Your task to perform on an android device: Open my contact list Image 0: 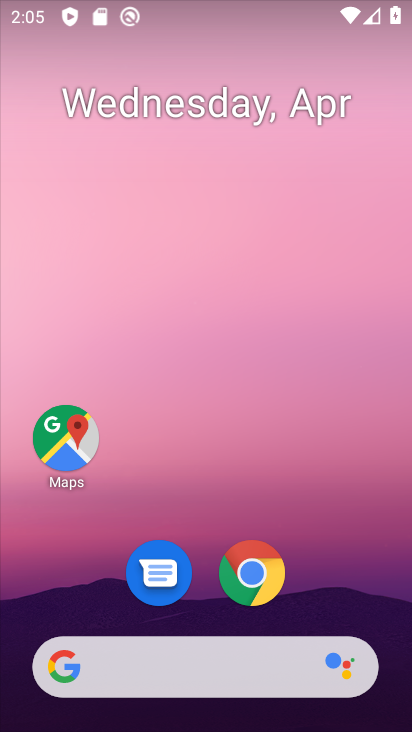
Step 0: drag from (373, 561) to (381, 147)
Your task to perform on an android device: Open my contact list Image 1: 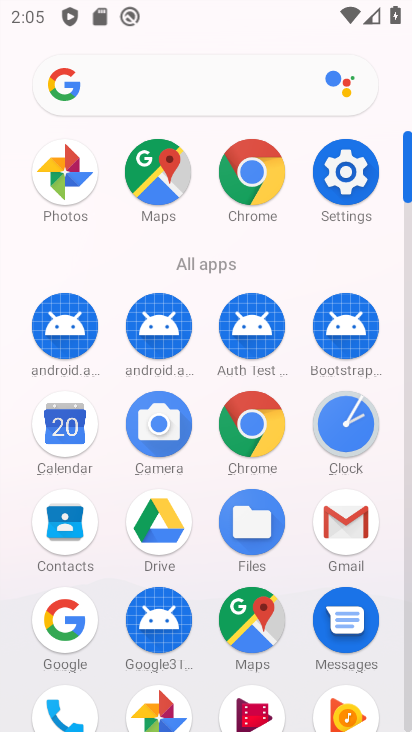
Step 1: click (74, 538)
Your task to perform on an android device: Open my contact list Image 2: 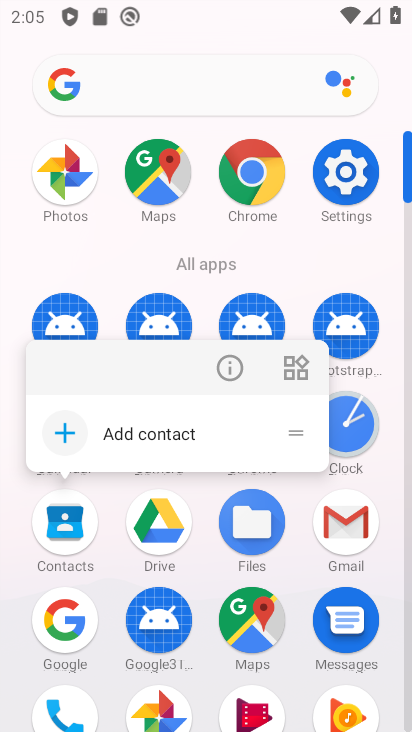
Step 2: click (68, 523)
Your task to perform on an android device: Open my contact list Image 3: 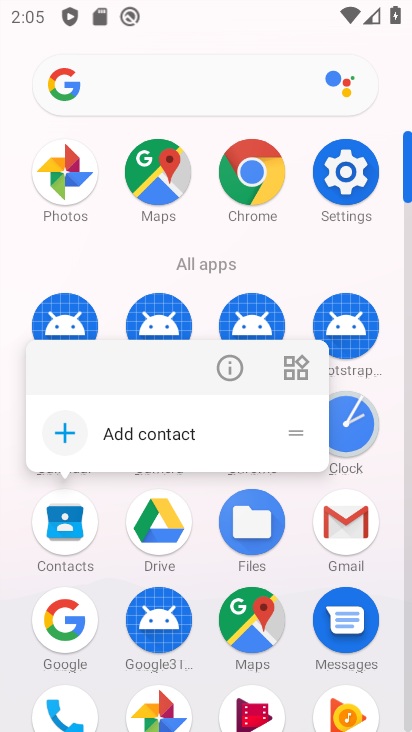
Step 3: click (55, 535)
Your task to perform on an android device: Open my contact list Image 4: 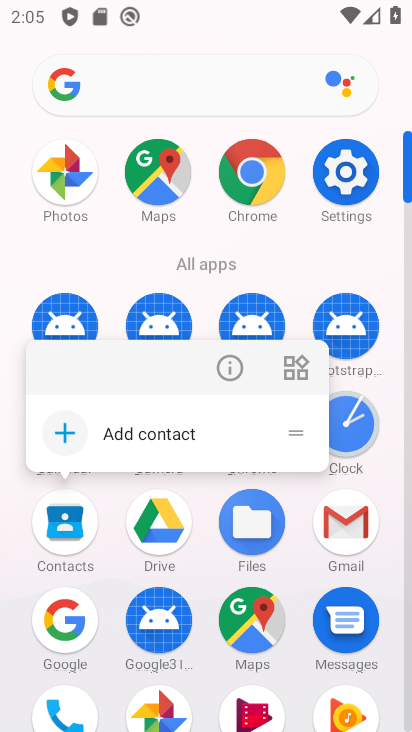
Step 4: click (75, 522)
Your task to perform on an android device: Open my contact list Image 5: 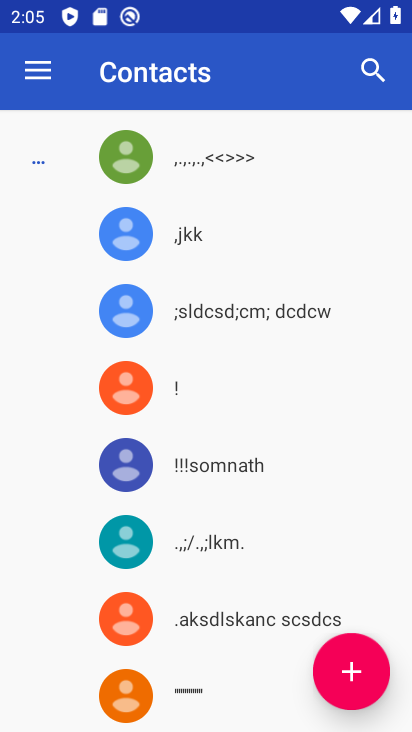
Step 5: task complete